Your task to perform on an android device: Go to Google Image 0: 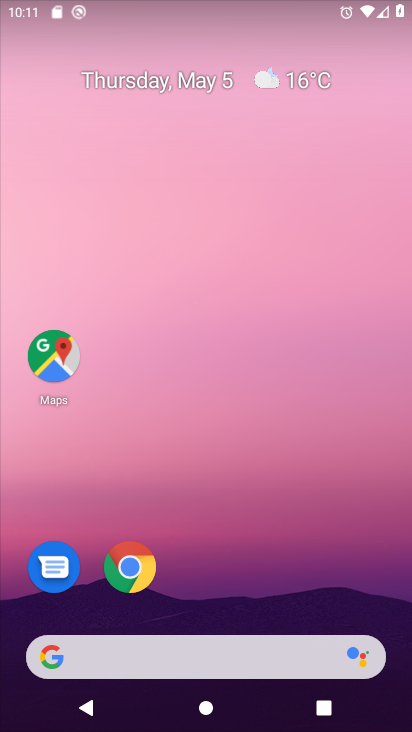
Step 0: click (49, 651)
Your task to perform on an android device: Go to Google Image 1: 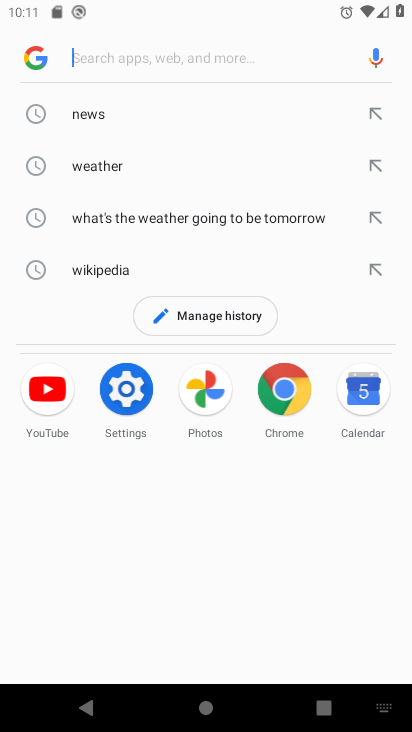
Step 1: click (31, 60)
Your task to perform on an android device: Go to Google Image 2: 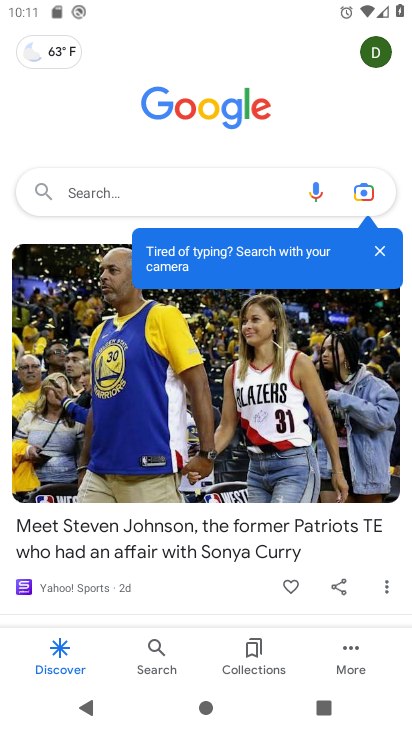
Step 2: task complete